Your task to perform on an android device: change notifications settings Image 0: 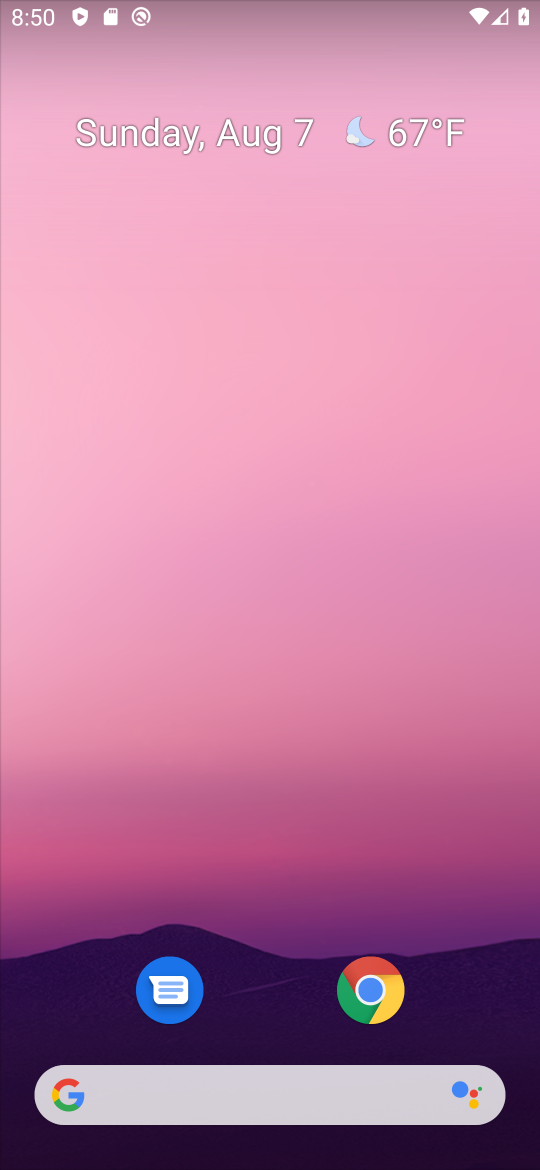
Step 0: drag from (280, 956) to (272, 0)
Your task to perform on an android device: change notifications settings Image 1: 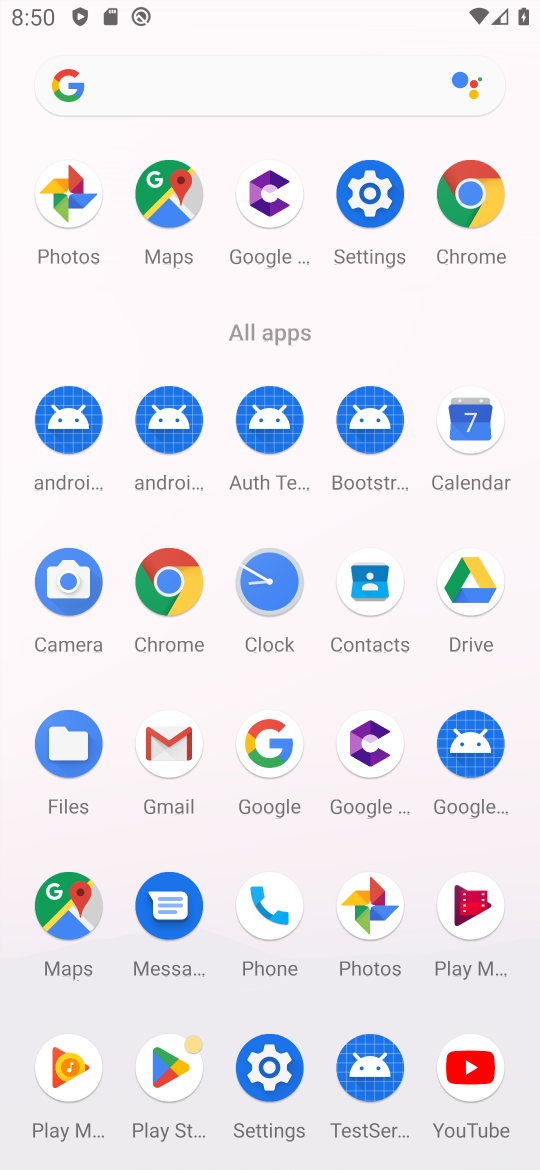
Step 1: click (371, 201)
Your task to perform on an android device: change notifications settings Image 2: 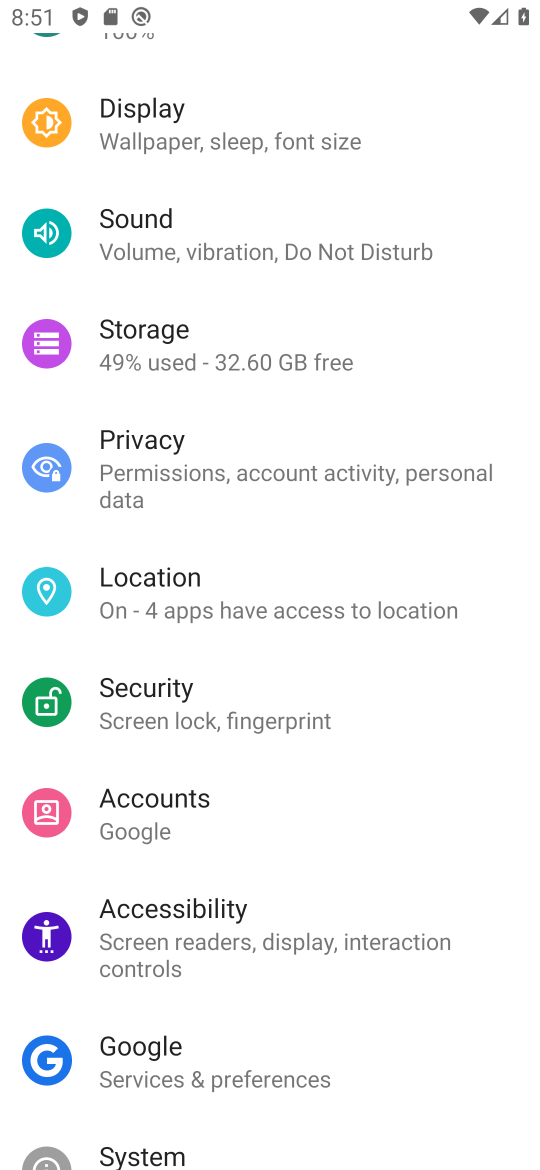
Step 2: drag from (313, 201) to (320, 957)
Your task to perform on an android device: change notifications settings Image 3: 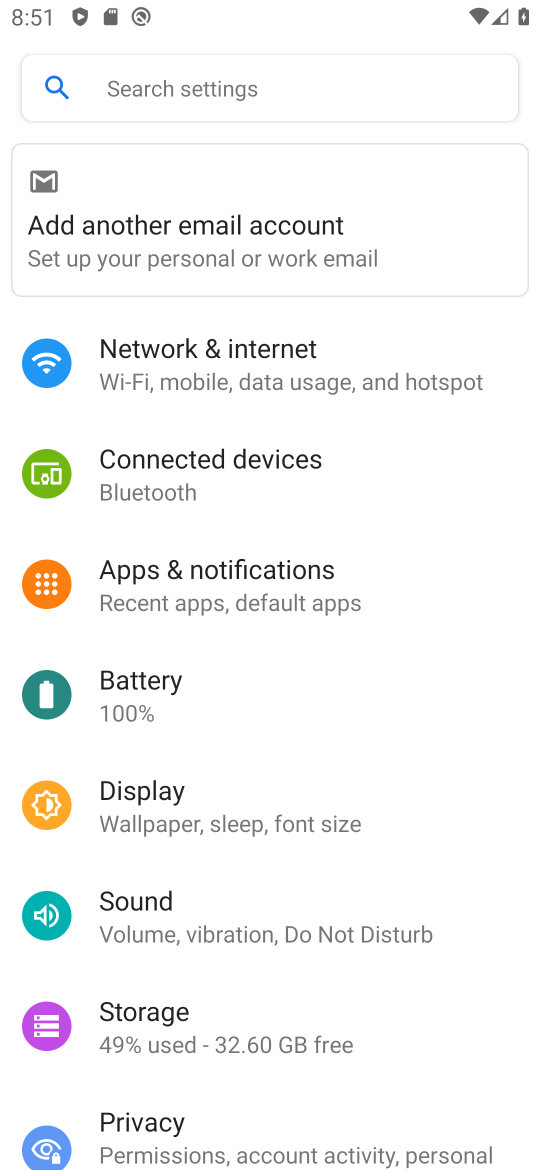
Step 3: click (317, 604)
Your task to perform on an android device: change notifications settings Image 4: 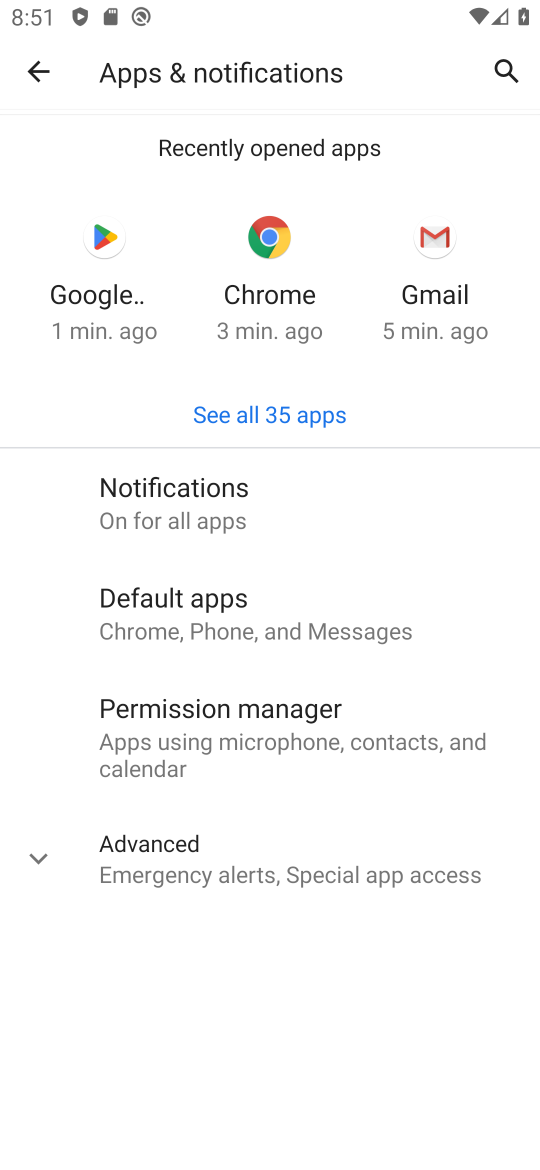
Step 4: click (34, 857)
Your task to perform on an android device: change notifications settings Image 5: 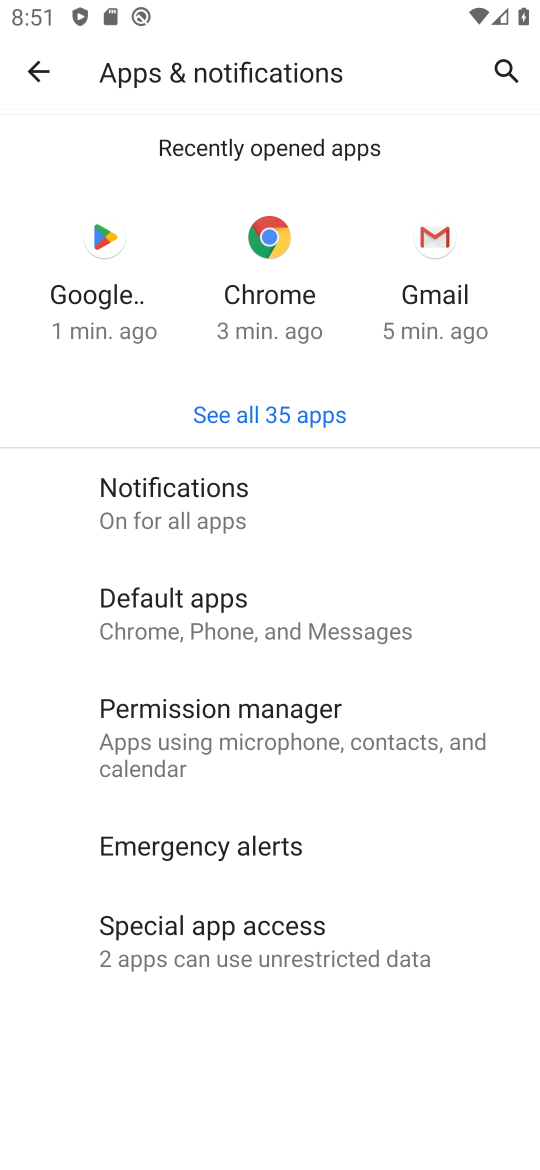
Step 5: click (215, 513)
Your task to perform on an android device: change notifications settings Image 6: 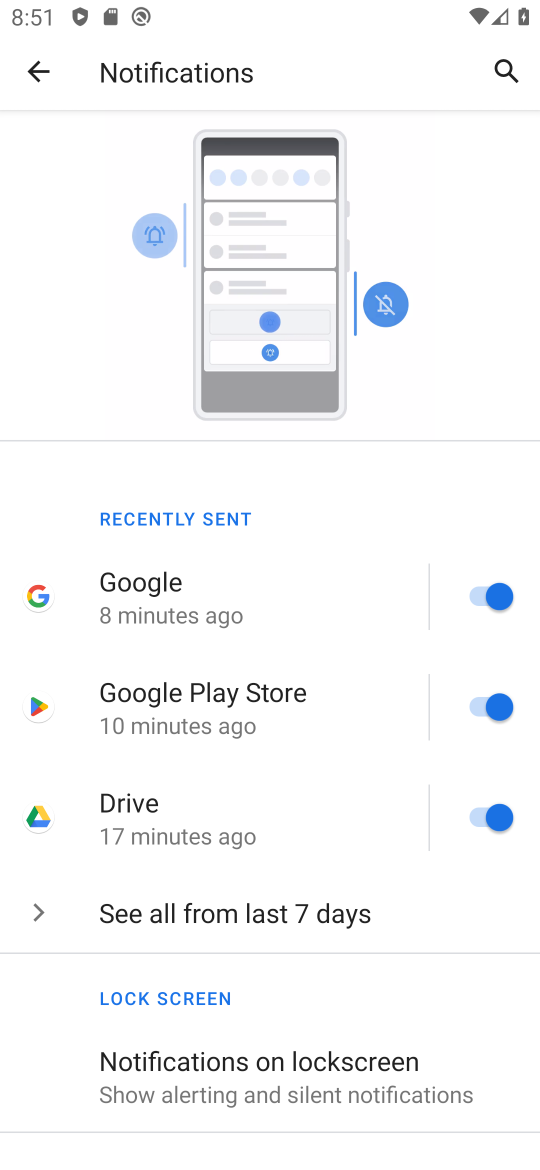
Step 6: click (250, 917)
Your task to perform on an android device: change notifications settings Image 7: 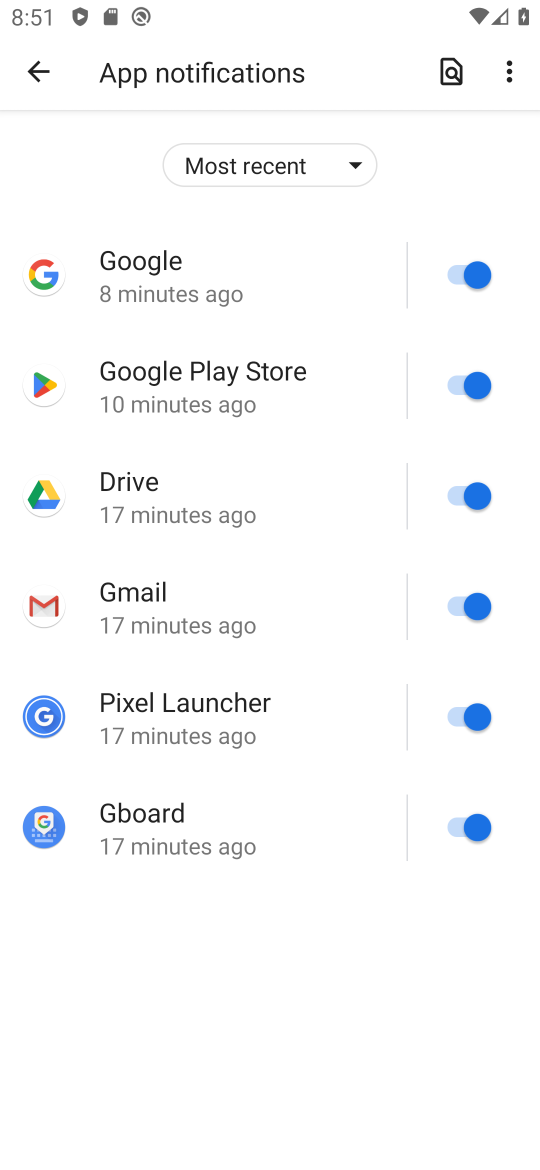
Step 7: click (475, 279)
Your task to perform on an android device: change notifications settings Image 8: 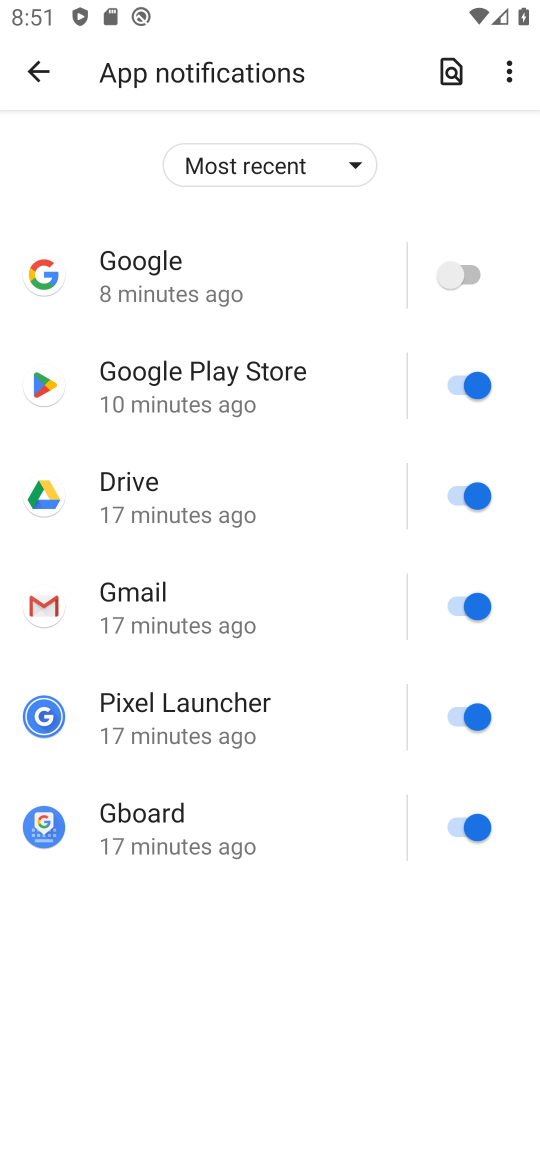
Step 8: click (467, 389)
Your task to perform on an android device: change notifications settings Image 9: 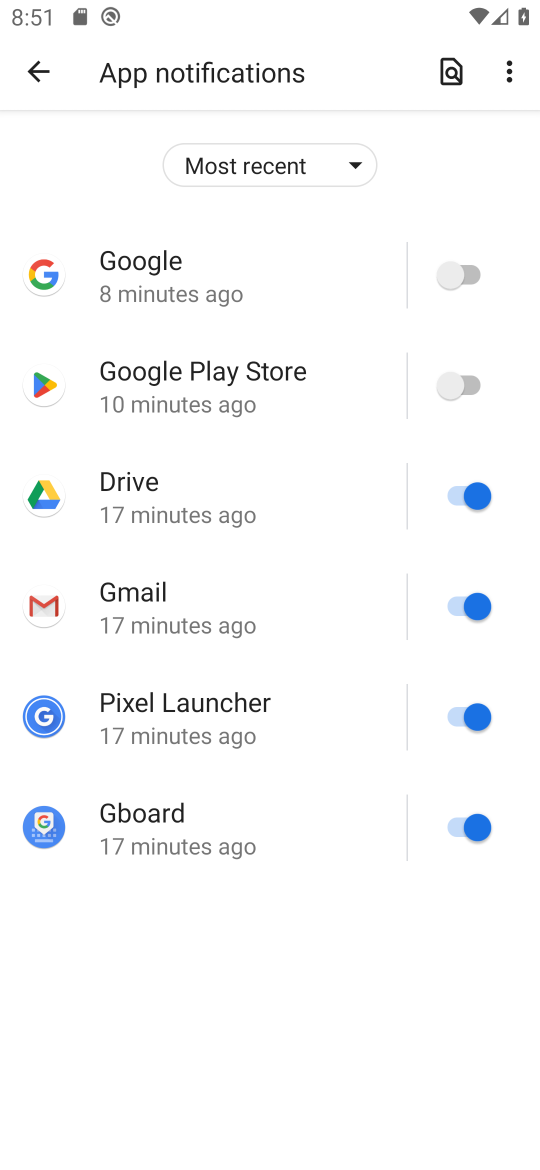
Step 9: click (475, 492)
Your task to perform on an android device: change notifications settings Image 10: 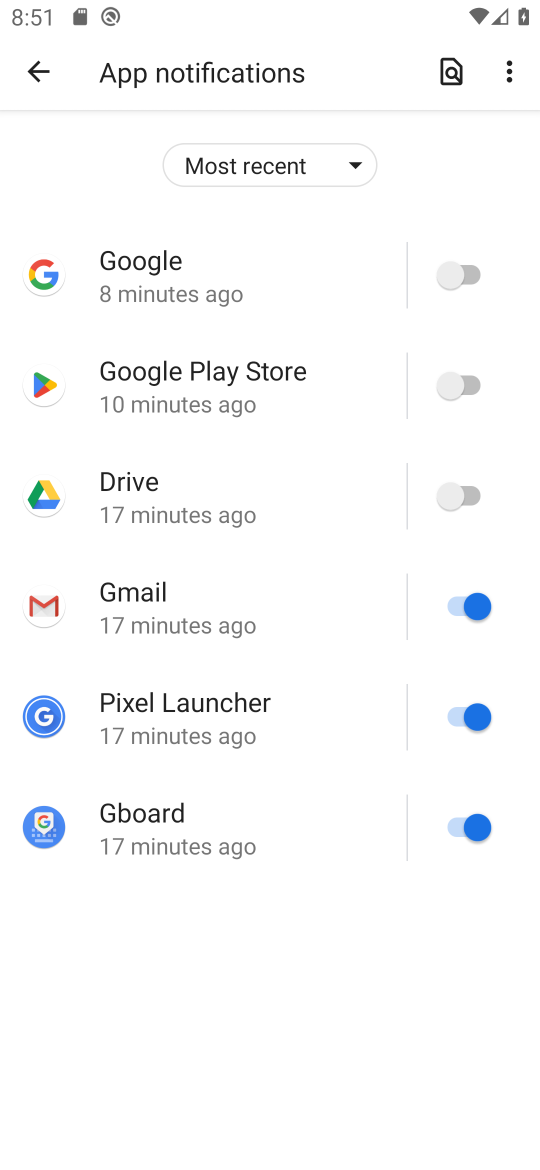
Step 10: click (469, 594)
Your task to perform on an android device: change notifications settings Image 11: 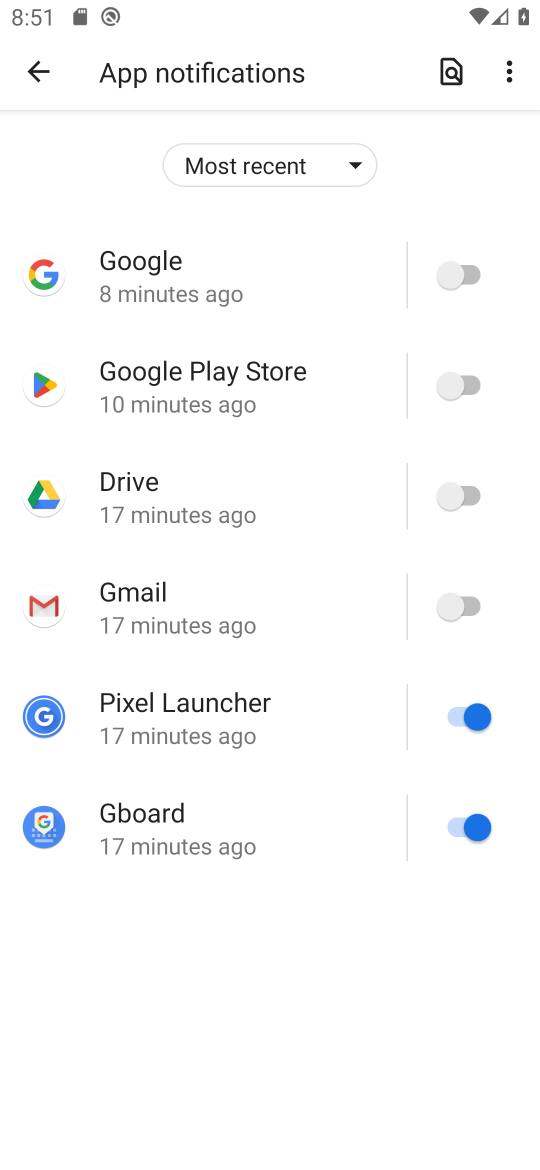
Step 11: click (463, 710)
Your task to perform on an android device: change notifications settings Image 12: 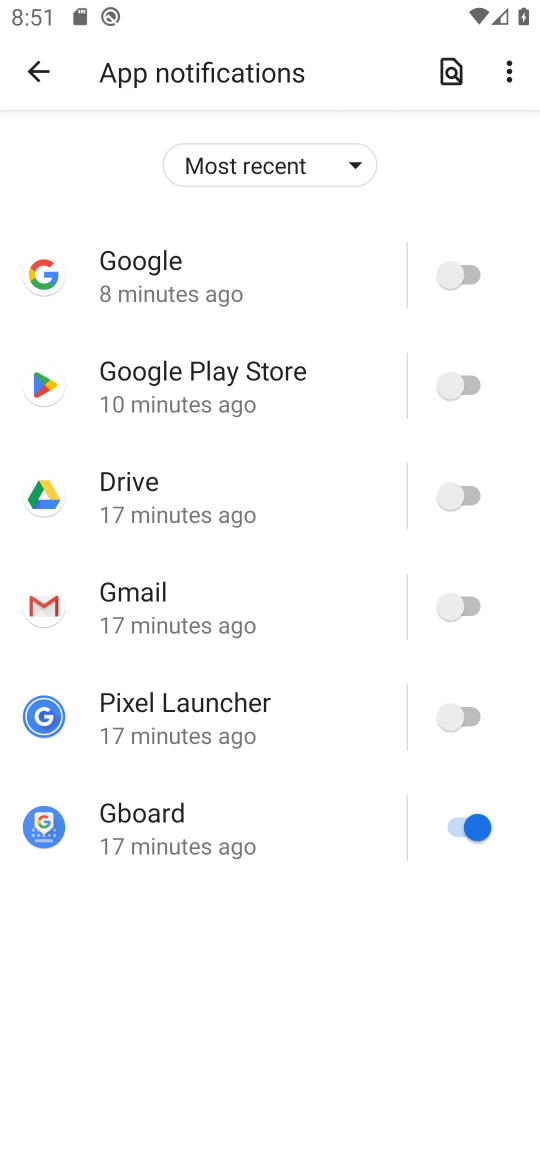
Step 12: click (462, 820)
Your task to perform on an android device: change notifications settings Image 13: 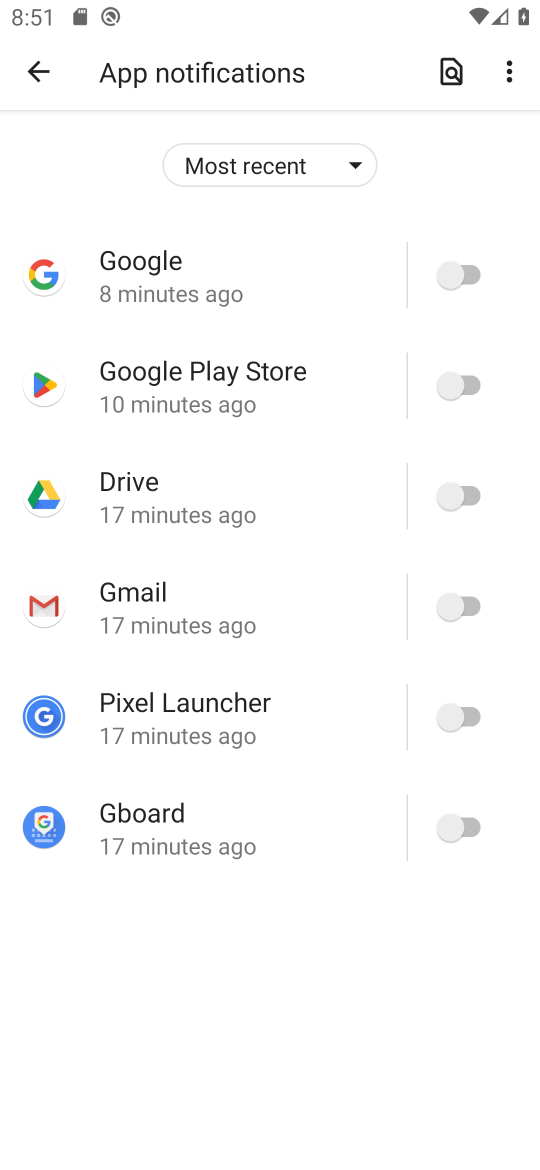
Step 13: task complete